Your task to perform on an android device: stop showing notifications on the lock screen Image 0: 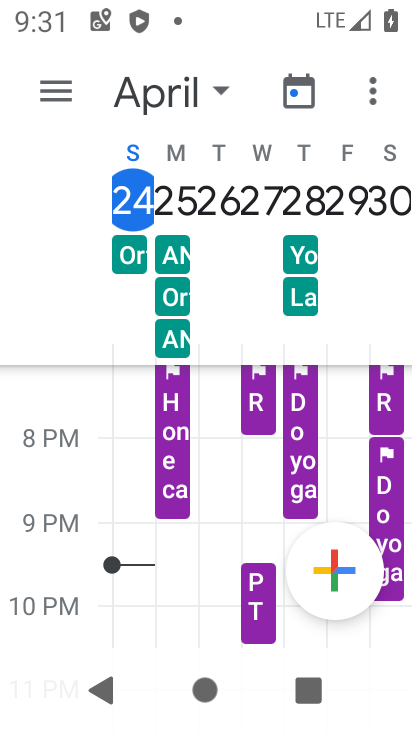
Step 0: press home button
Your task to perform on an android device: stop showing notifications on the lock screen Image 1: 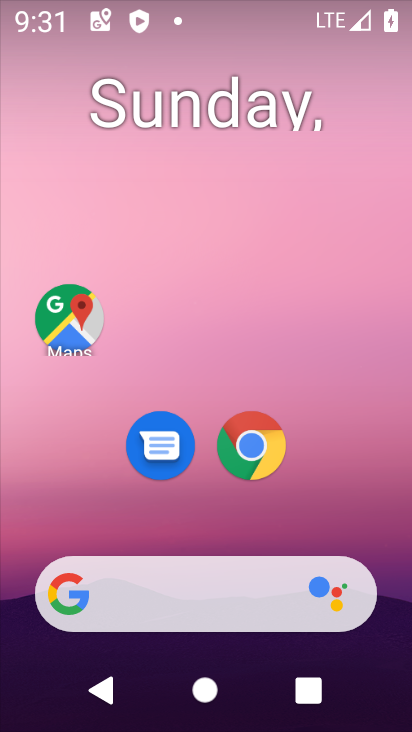
Step 1: drag from (382, 547) to (339, 195)
Your task to perform on an android device: stop showing notifications on the lock screen Image 2: 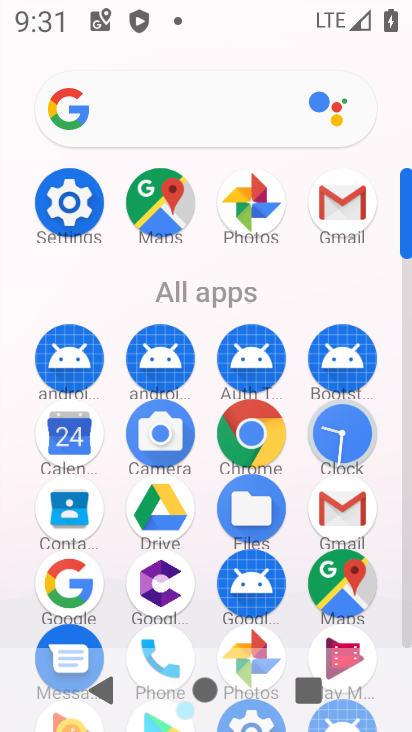
Step 2: click (407, 627)
Your task to perform on an android device: stop showing notifications on the lock screen Image 3: 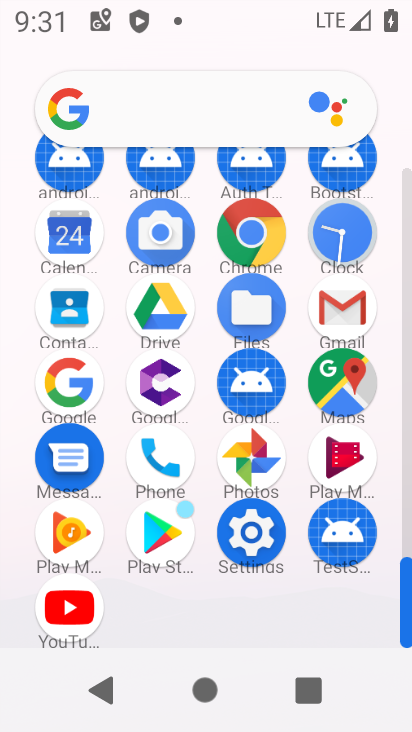
Step 3: click (250, 532)
Your task to perform on an android device: stop showing notifications on the lock screen Image 4: 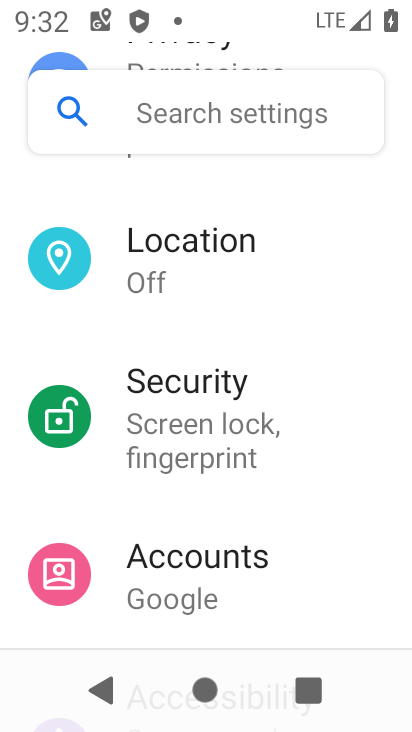
Step 4: drag from (305, 314) to (299, 600)
Your task to perform on an android device: stop showing notifications on the lock screen Image 5: 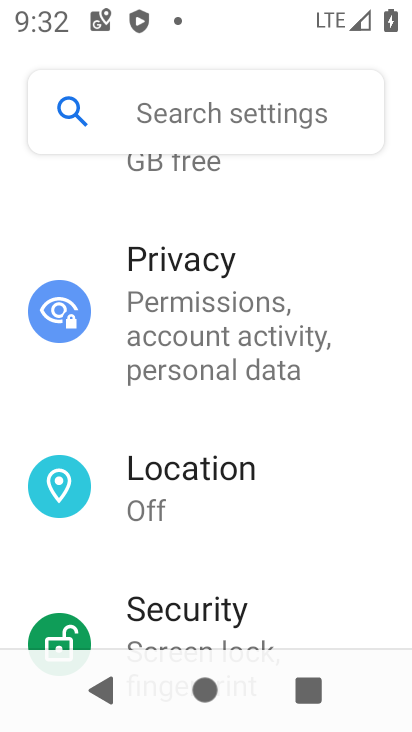
Step 5: drag from (341, 235) to (332, 519)
Your task to perform on an android device: stop showing notifications on the lock screen Image 6: 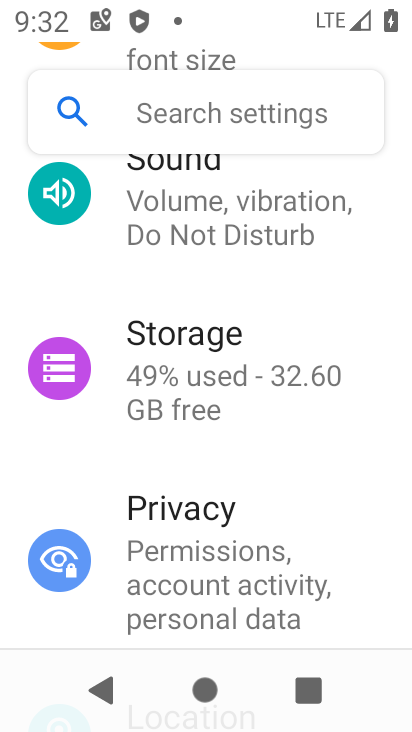
Step 6: drag from (351, 247) to (341, 487)
Your task to perform on an android device: stop showing notifications on the lock screen Image 7: 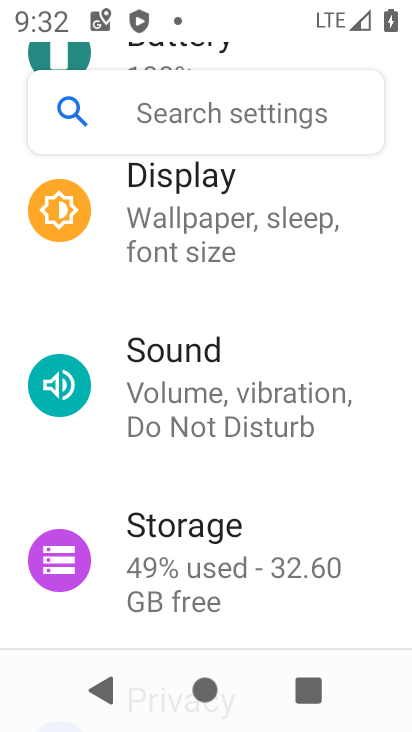
Step 7: drag from (355, 310) to (358, 550)
Your task to perform on an android device: stop showing notifications on the lock screen Image 8: 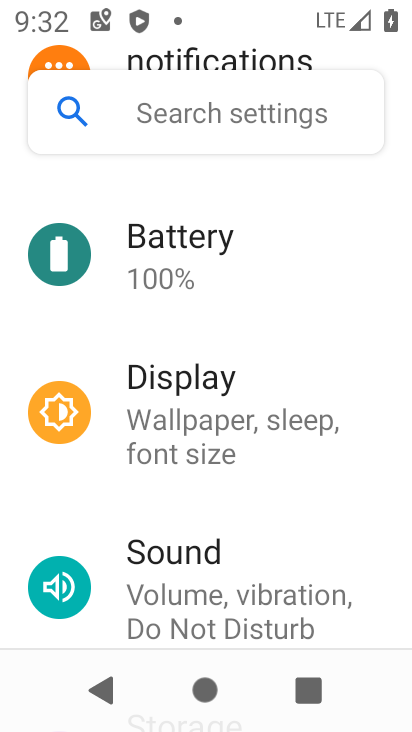
Step 8: drag from (324, 248) to (336, 509)
Your task to perform on an android device: stop showing notifications on the lock screen Image 9: 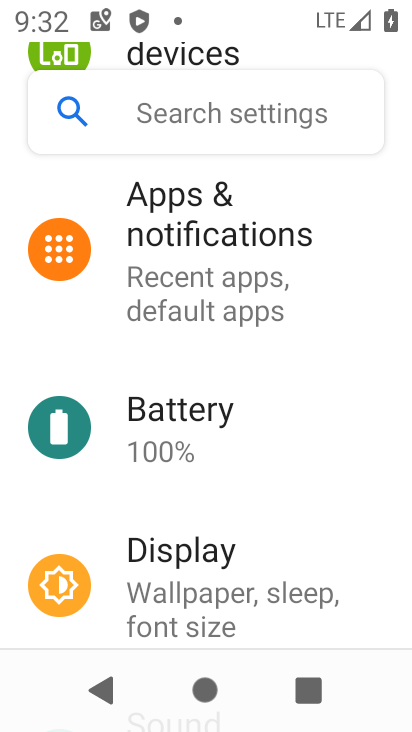
Step 9: click (154, 240)
Your task to perform on an android device: stop showing notifications on the lock screen Image 10: 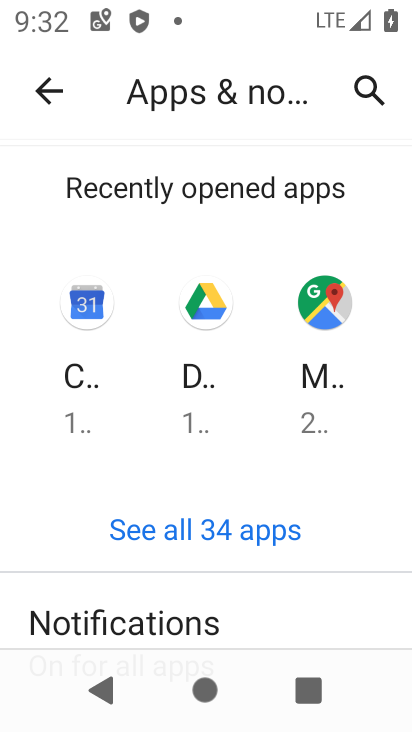
Step 10: drag from (313, 595) to (271, 200)
Your task to perform on an android device: stop showing notifications on the lock screen Image 11: 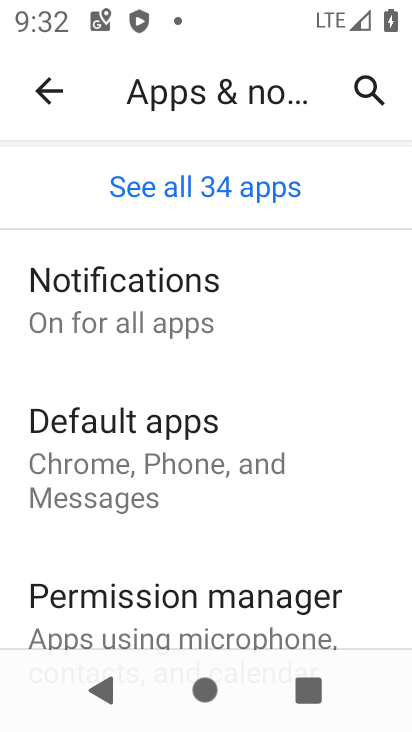
Step 11: click (85, 285)
Your task to perform on an android device: stop showing notifications on the lock screen Image 12: 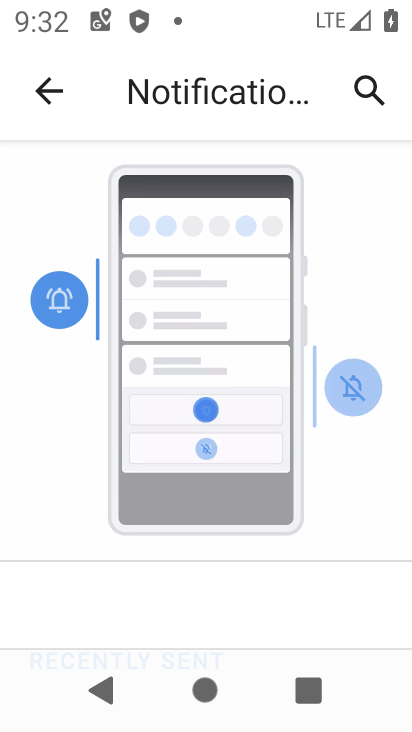
Step 12: drag from (333, 588) to (242, 192)
Your task to perform on an android device: stop showing notifications on the lock screen Image 13: 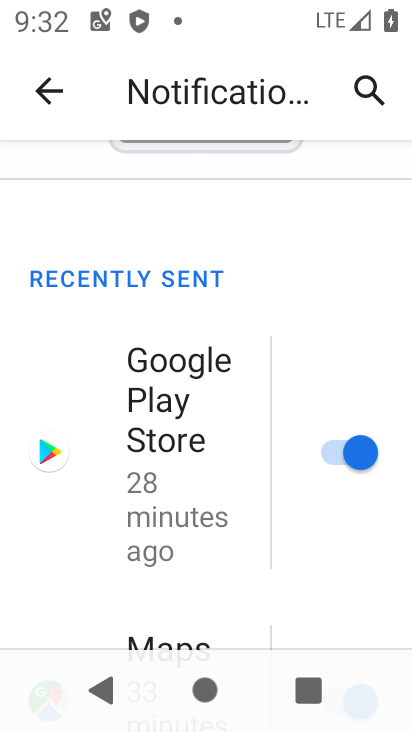
Step 13: drag from (259, 592) to (219, 199)
Your task to perform on an android device: stop showing notifications on the lock screen Image 14: 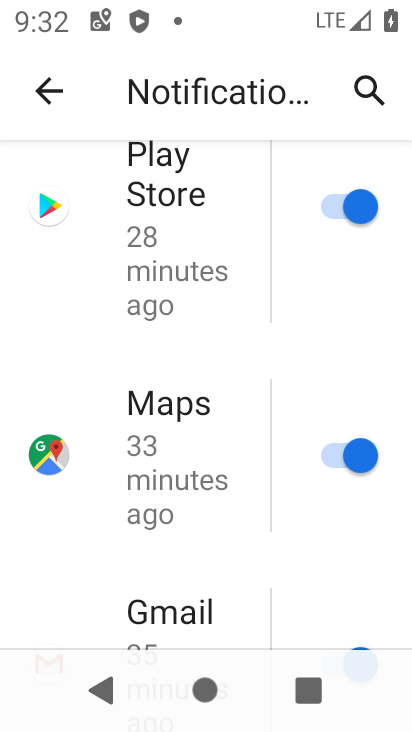
Step 14: drag from (253, 580) to (272, 84)
Your task to perform on an android device: stop showing notifications on the lock screen Image 15: 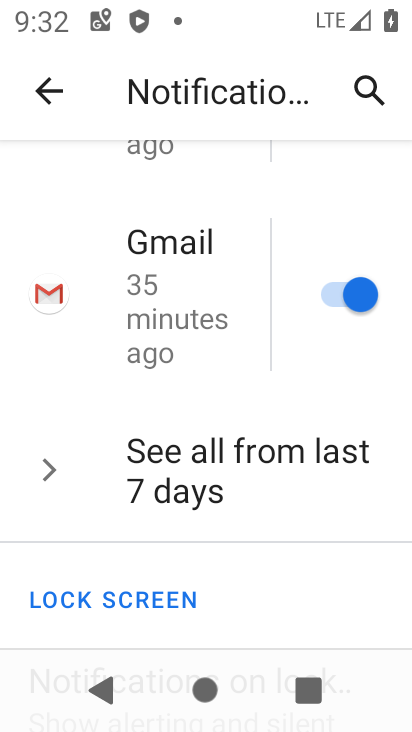
Step 15: drag from (277, 585) to (222, 125)
Your task to perform on an android device: stop showing notifications on the lock screen Image 16: 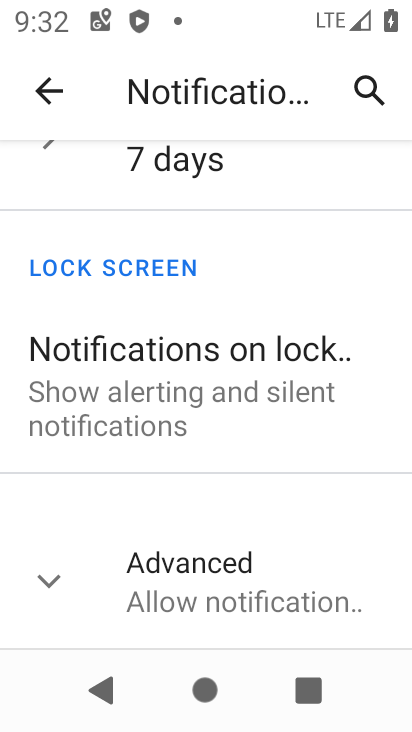
Step 16: click (123, 377)
Your task to perform on an android device: stop showing notifications on the lock screen Image 17: 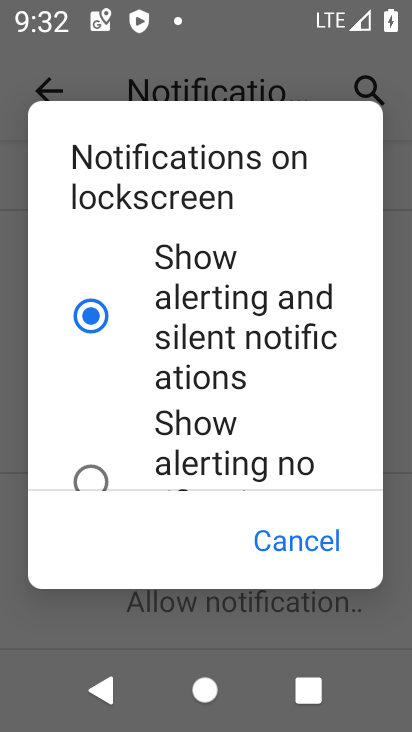
Step 17: drag from (240, 462) to (201, 122)
Your task to perform on an android device: stop showing notifications on the lock screen Image 18: 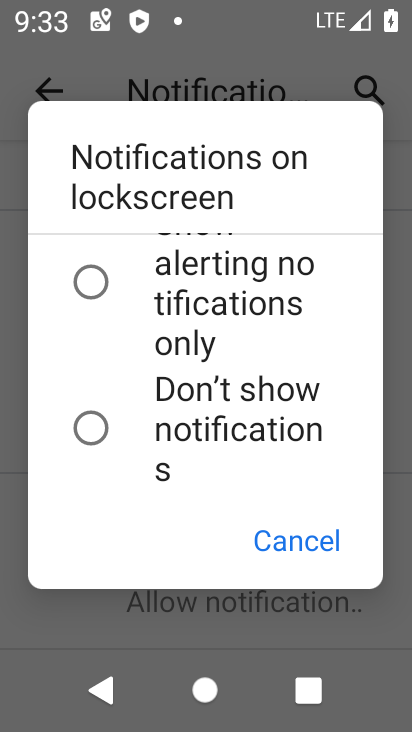
Step 18: click (98, 430)
Your task to perform on an android device: stop showing notifications on the lock screen Image 19: 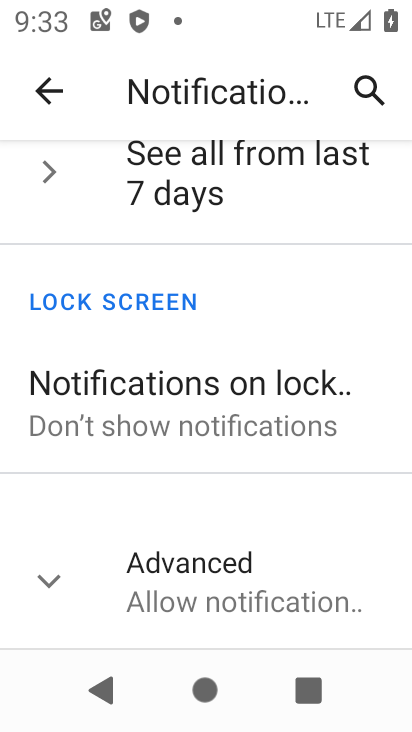
Step 19: task complete